Your task to perform on an android device: toggle show notifications on the lock screen Image 0: 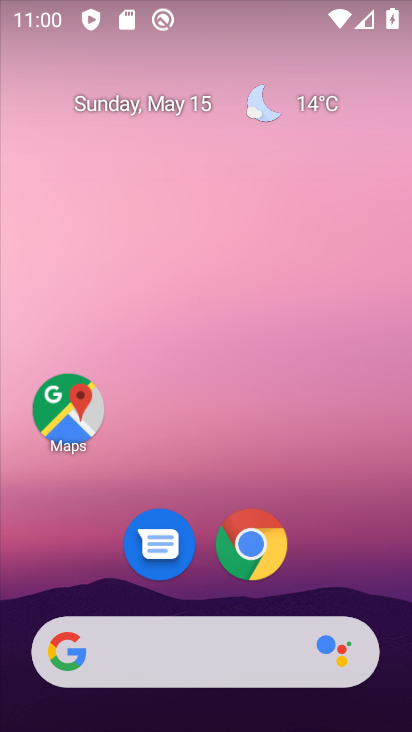
Step 0: drag from (12, 594) to (205, 139)
Your task to perform on an android device: toggle show notifications on the lock screen Image 1: 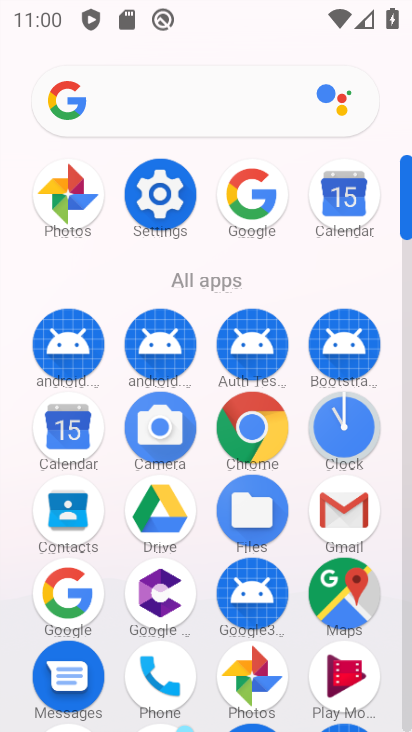
Step 1: drag from (191, 669) to (286, 404)
Your task to perform on an android device: toggle show notifications on the lock screen Image 2: 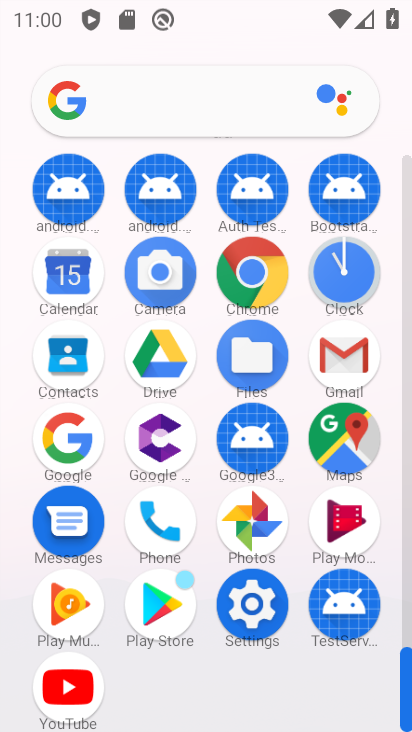
Step 2: click (271, 611)
Your task to perform on an android device: toggle show notifications on the lock screen Image 3: 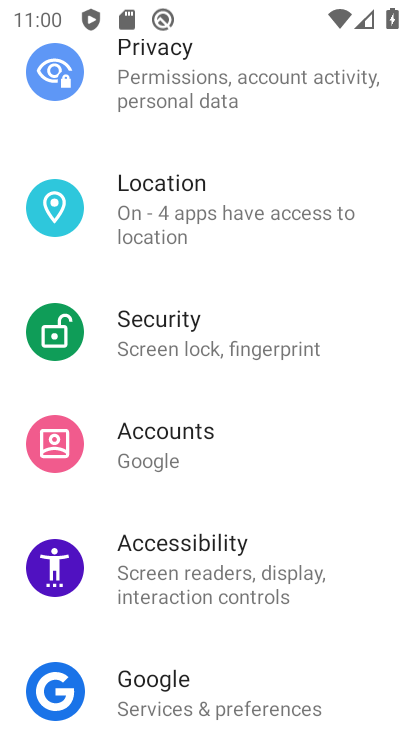
Step 3: drag from (263, 266) to (224, 706)
Your task to perform on an android device: toggle show notifications on the lock screen Image 4: 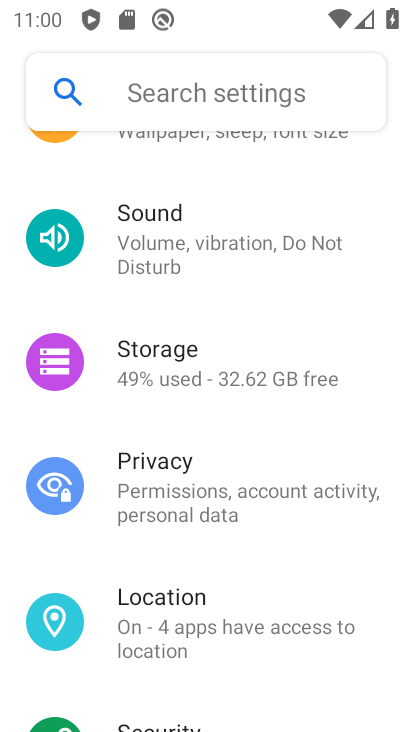
Step 4: drag from (245, 301) to (220, 620)
Your task to perform on an android device: toggle show notifications on the lock screen Image 5: 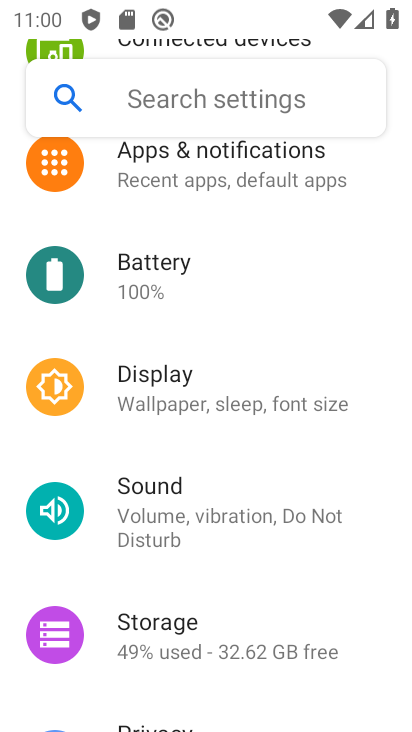
Step 5: drag from (239, 342) to (218, 561)
Your task to perform on an android device: toggle show notifications on the lock screen Image 6: 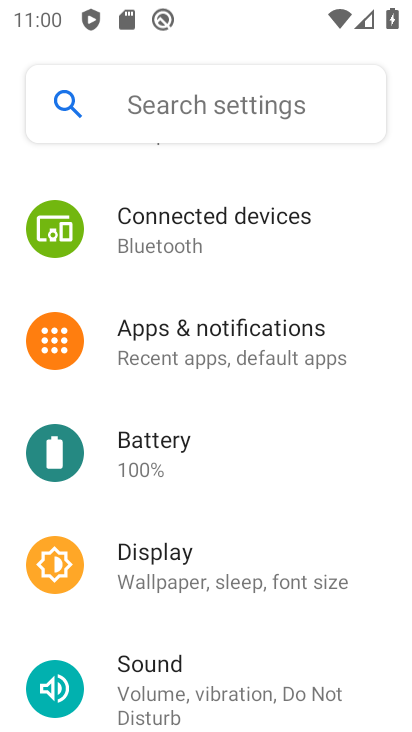
Step 6: click (248, 340)
Your task to perform on an android device: toggle show notifications on the lock screen Image 7: 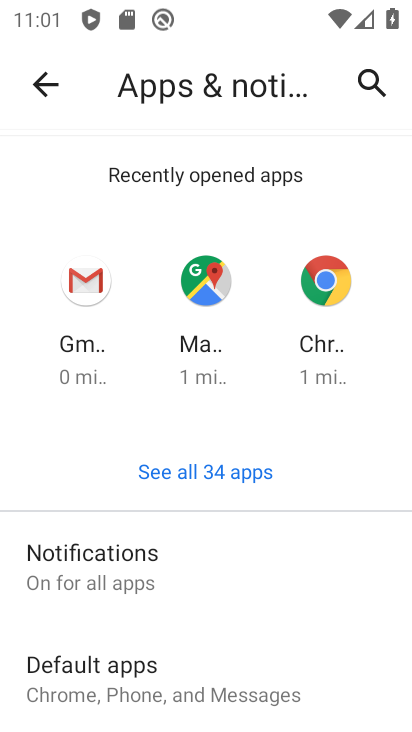
Step 7: click (170, 571)
Your task to perform on an android device: toggle show notifications on the lock screen Image 8: 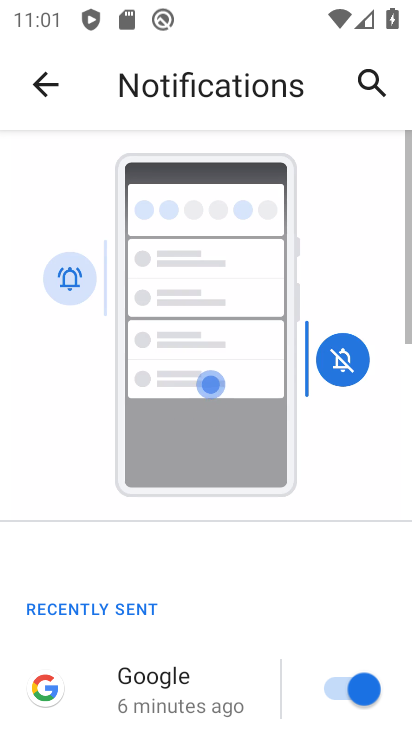
Step 8: drag from (208, 643) to (325, 126)
Your task to perform on an android device: toggle show notifications on the lock screen Image 9: 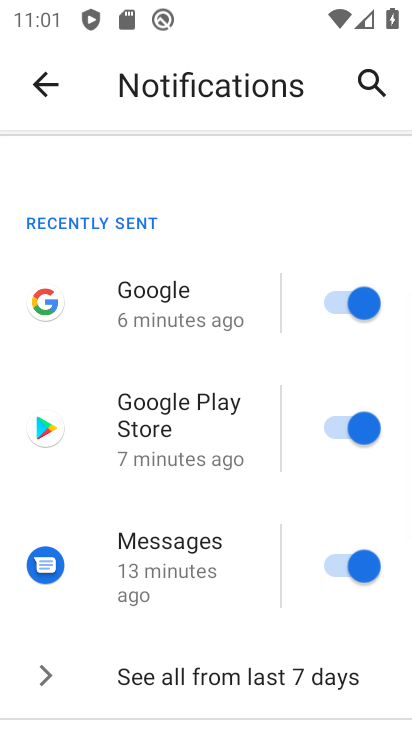
Step 9: drag from (151, 568) to (239, 168)
Your task to perform on an android device: toggle show notifications on the lock screen Image 10: 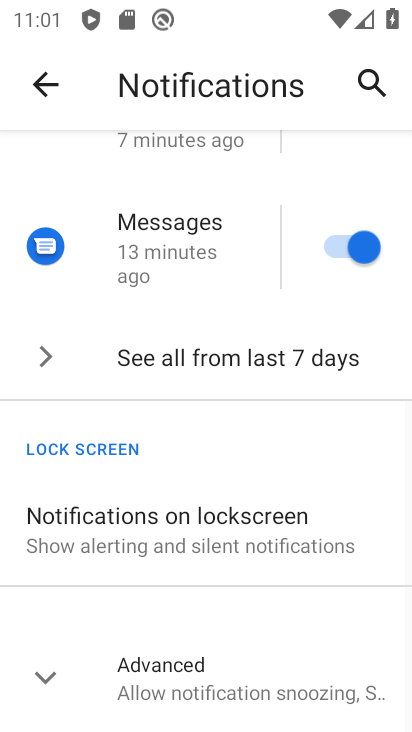
Step 10: drag from (197, 617) to (206, 704)
Your task to perform on an android device: toggle show notifications on the lock screen Image 11: 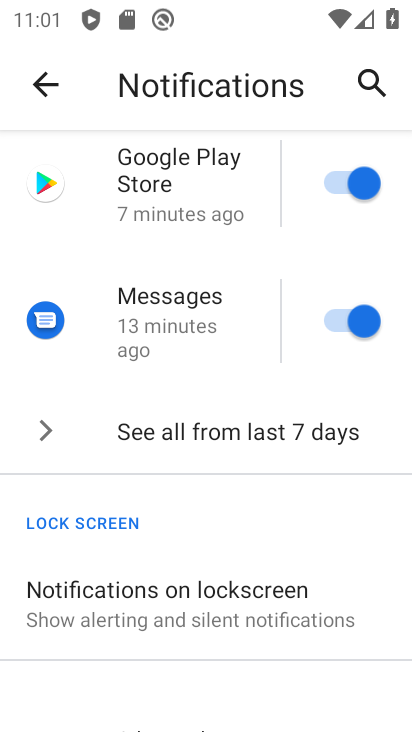
Step 11: click (212, 639)
Your task to perform on an android device: toggle show notifications on the lock screen Image 12: 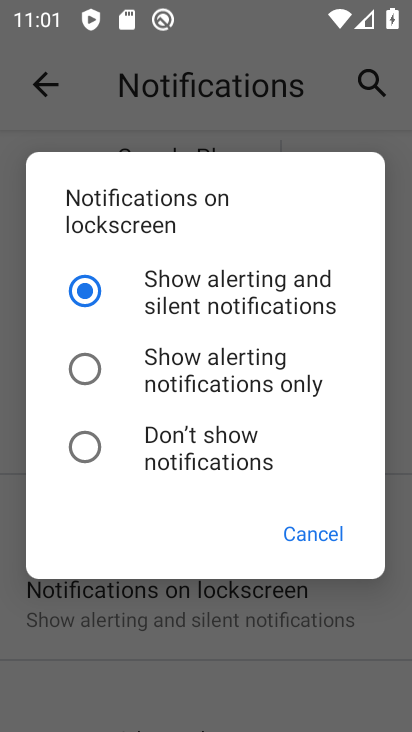
Step 12: click (218, 472)
Your task to perform on an android device: toggle show notifications on the lock screen Image 13: 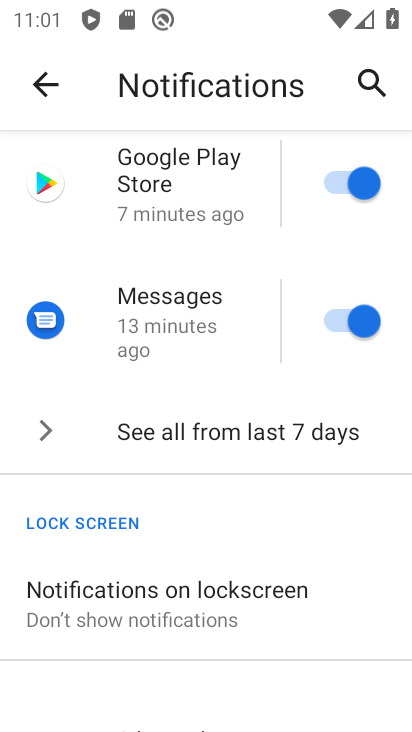
Step 13: task complete